Your task to perform on an android device: Go to Google Image 0: 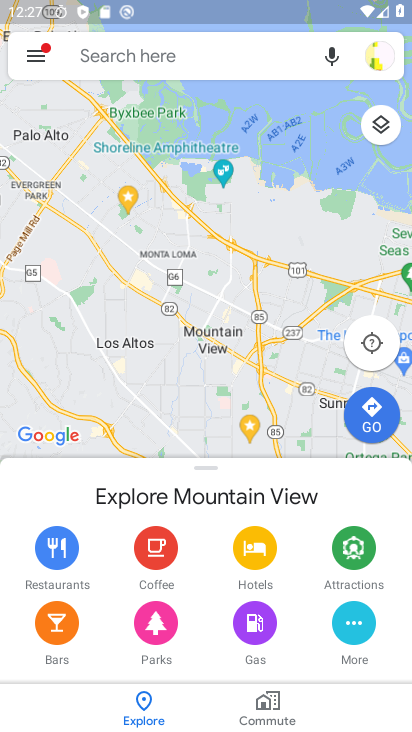
Step 0: press home button
Your task to perform on an android device: Go to Google Image 1: 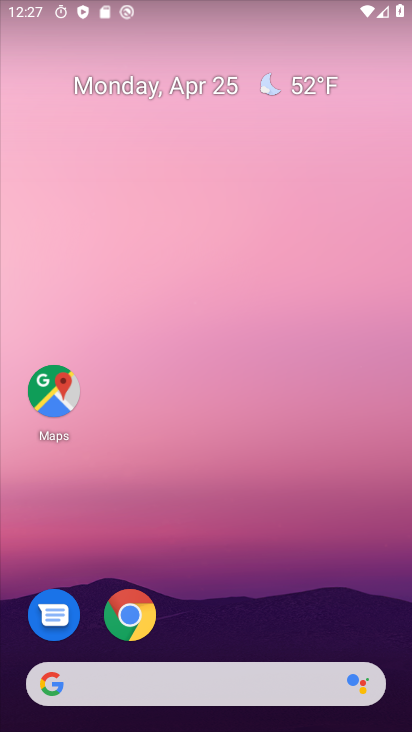
Step 1: drag from (213, 641) to (239, 51)
Your task to perform on an android device: Go to Google Image 2: 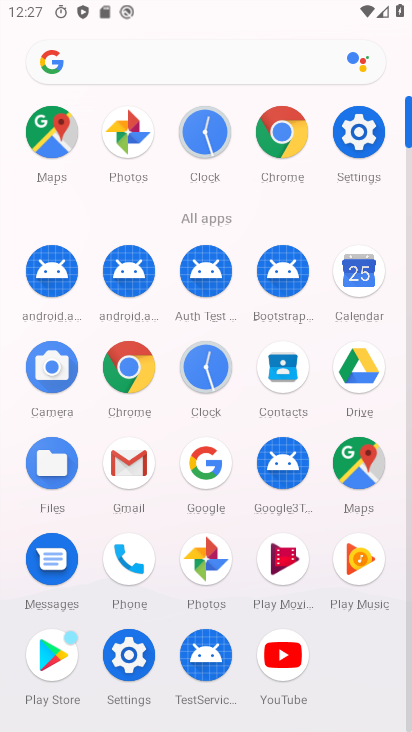
Step 2: click (203, 470)
Your task to perform on an android device: Go to Google Image 3: 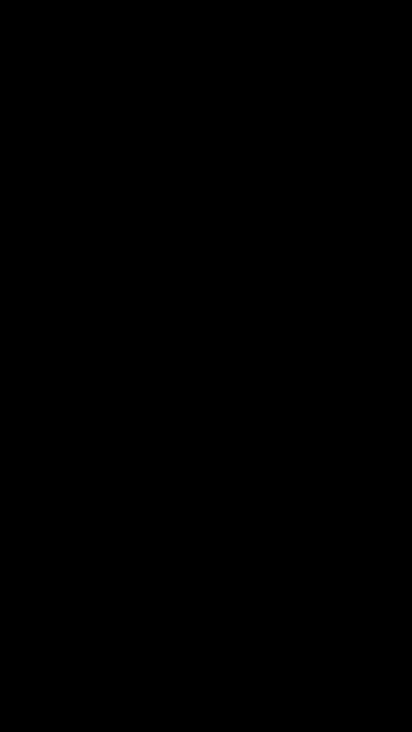
Step 3: task complete